Your task to perform on an android device: turn pop-ups off in chrome Image 0: 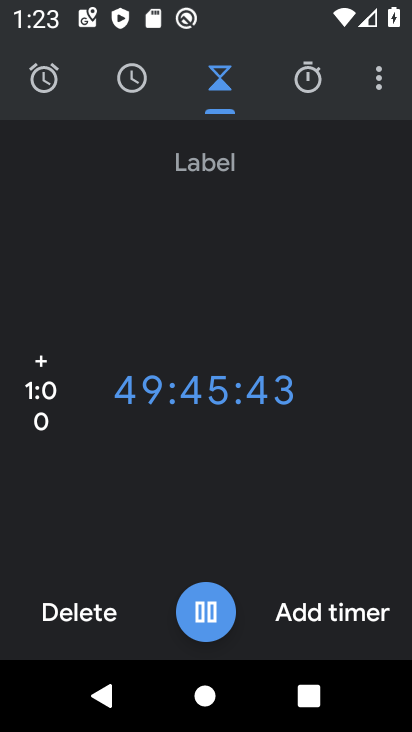
Step 0: press home button
Your task to perform on an android device: turn pop-ups off in chrome Image 1: 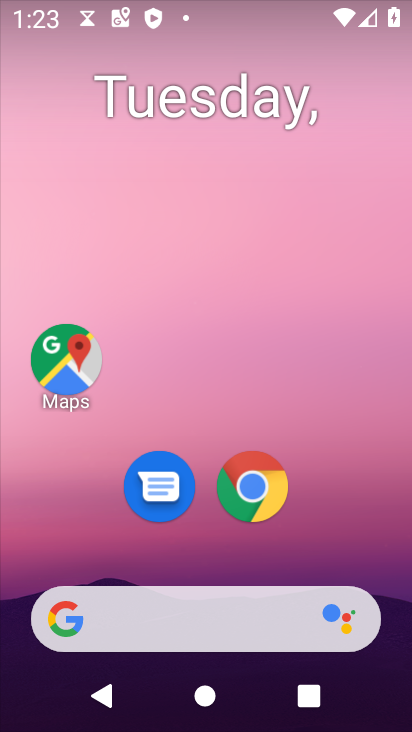
Step 1: drag from (338, 564) to (318, 11)
Your task to perform on an android device: turn pop-ups off in chrome Image 2: 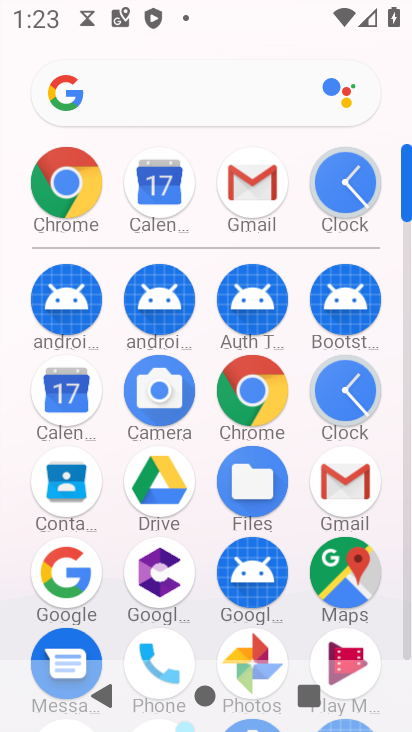
Step 2: click (57, 207)
Your task to perform on an android device: turn pop-ups off in chrome Image 3: 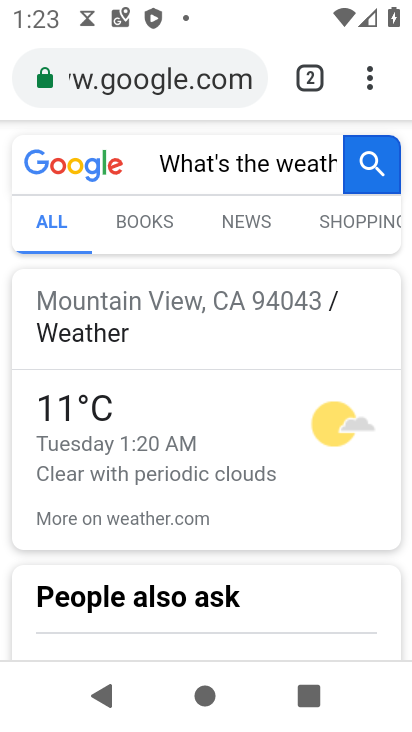
Step 3: click (356, 91)
Your task to perform on an android device: turn pop-ups off in chrome Image 4: 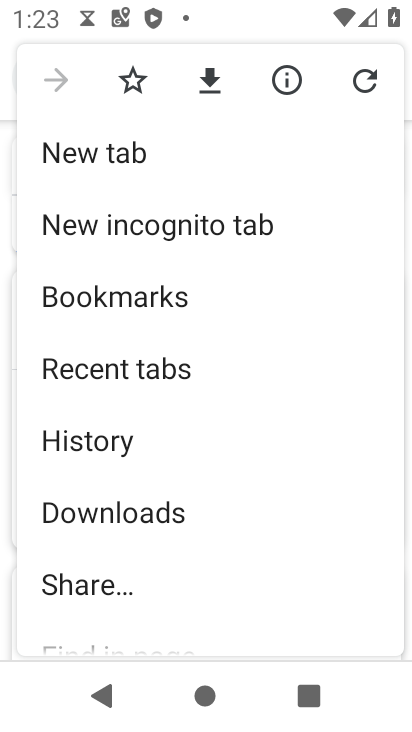
Step 4: drag from (110, 643) to (125, 130)
Your task to perform on an android device: turn pop-ups off in chrome Image 5: 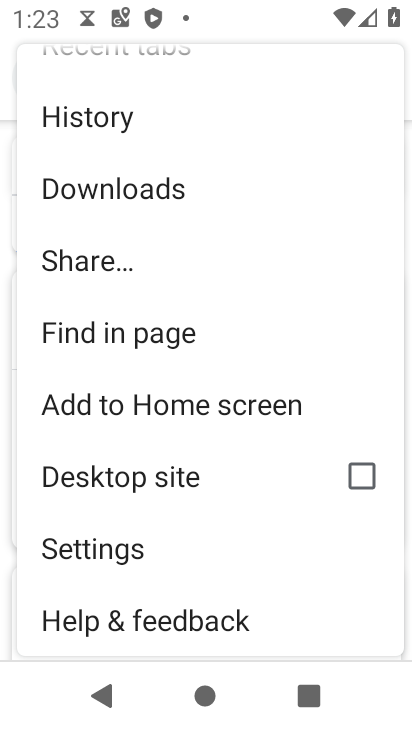
Step 5: click (173, 547)
Your task to perform on an android device: turn pop-ups off in chrome Image 6: 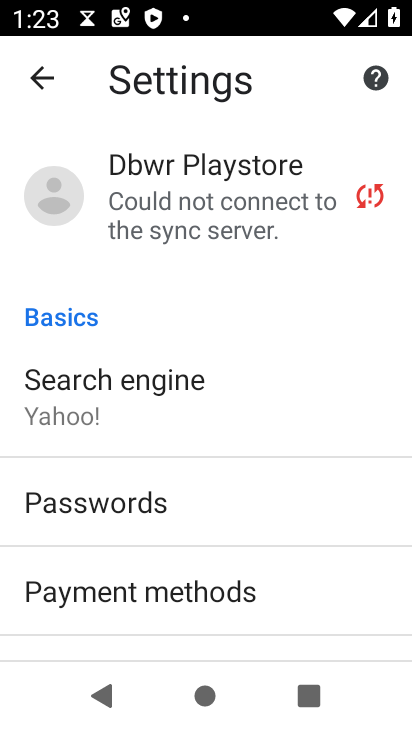
Step 6: drag from (209, 638) to (142, 181)
Your task to perform on an android device: turn pop-ups off in chrome Image 7: 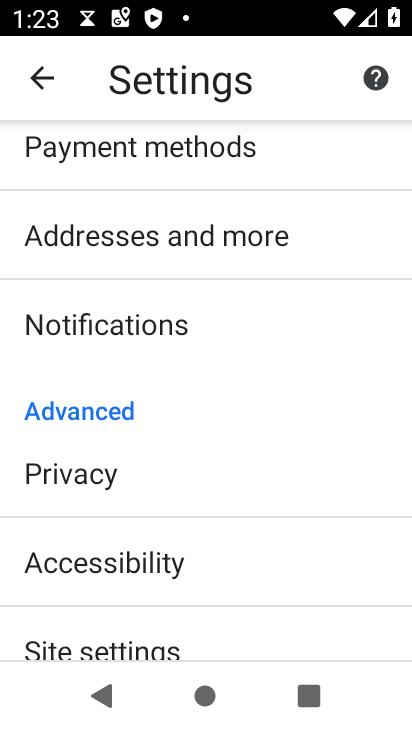
Step 7: drag from (208, 614) to (218, 191)
Your task to perform on an android device: turn pop-ups off in chrome Image 8: 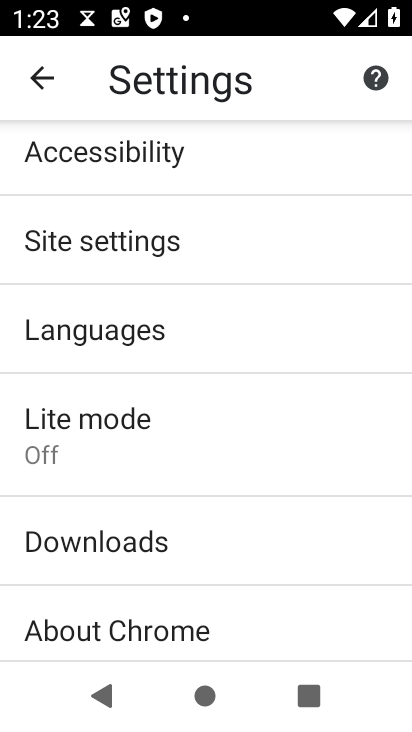
Step 8: click (219, 248)
Your task to perform on an android device: turn pop-ups off in chrome Image 9: 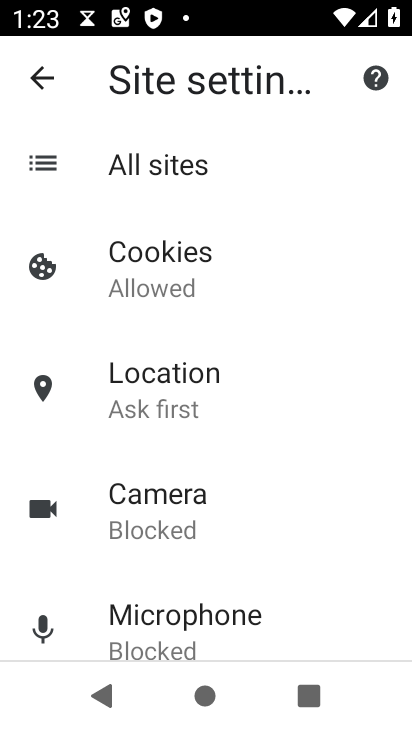
Step 9: drag from (224, 581) to (233, 193)
Your task to perform on an android device: turn pop-ups off in chrome Image 10: 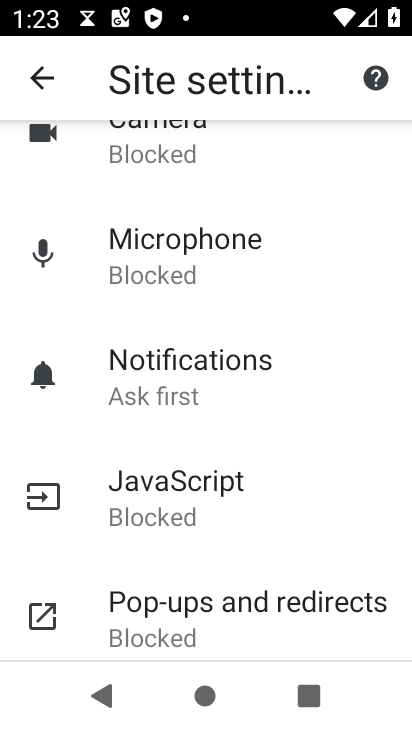
Step 10: drag from (234, 511) to (245, 247)
Your task to perform on an android device: turn pop-ups off in chrome Image 11: 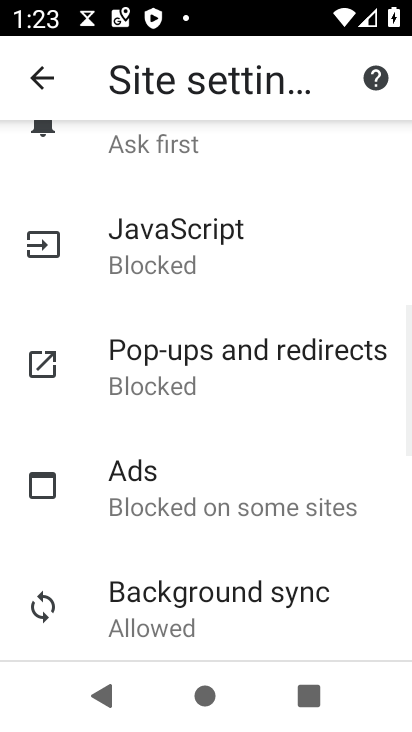
Step 11: click (238, 358)
Your task to perform on an android device: turn pop-ups off in chrome Image 12: 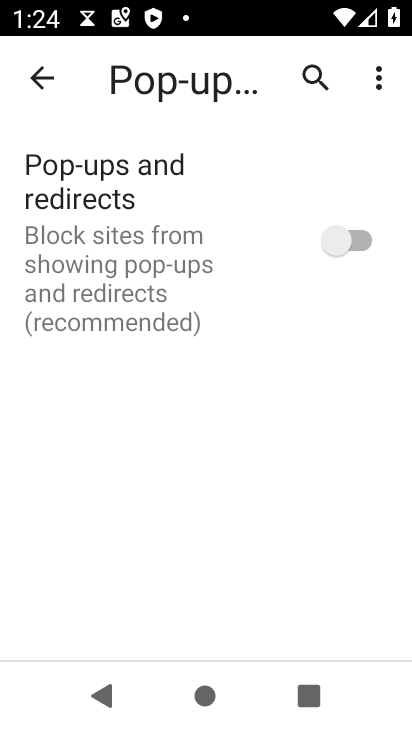
Step 12: task complete